Your task to perform on an android device: Open Yahoo.com Image 0: 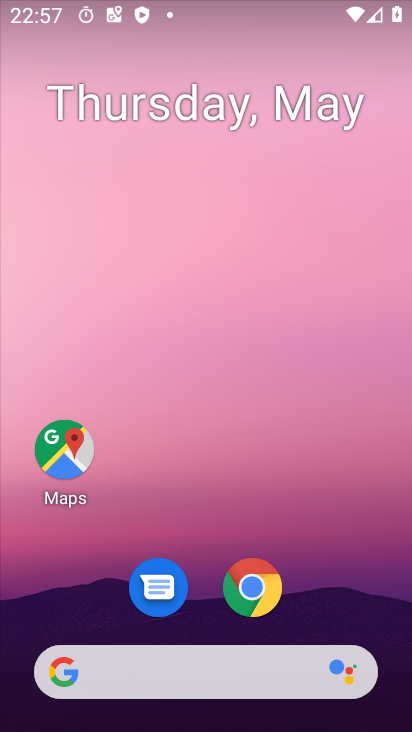
Step 0: click (249, 593)
Your task to perform on an android device: Open Yahoo.com Image 1: 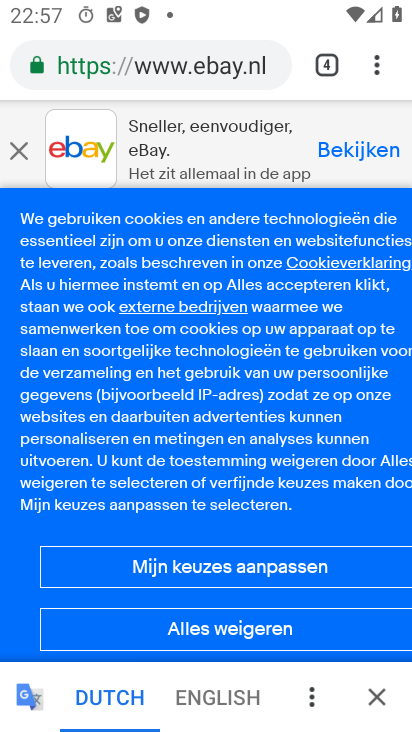
Step 1: click (131, 57)
Your task to perform on an android device: Open Yahoo.com Image 2: 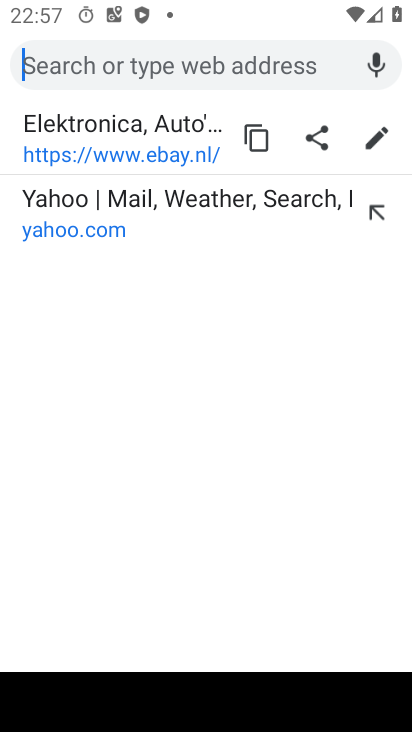
Step 2: click (57, 236)
Your task to perform on an android device: Open Yahoo.com Image 3: 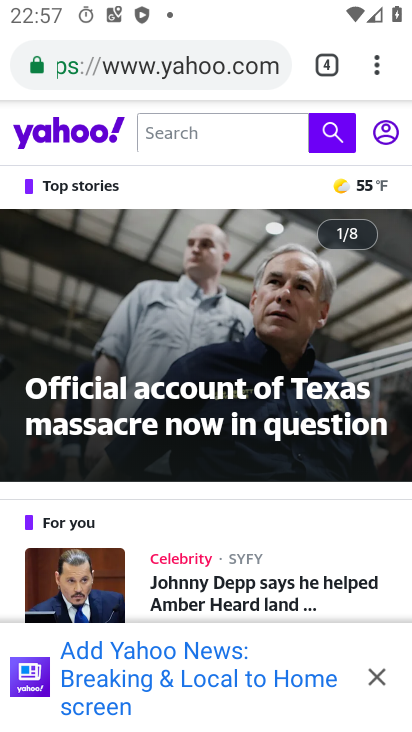
Step 3: task complete